Your task to perform on an android device: turn off priority inbox in the gmail app Image 0: 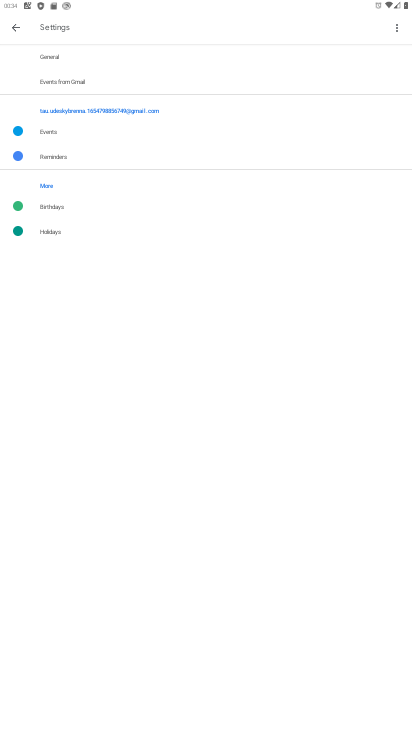
Step 0: press home button
Your task to perform on an android device: turn off priority inbox in the gmail app Image 1: 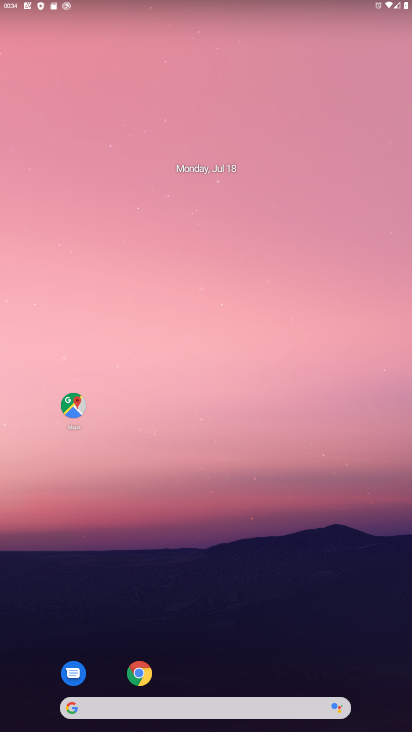
Step 1: drag from (293, 689) to (266, 260)
Your task to perform on an android device: turn off priority inbox in the gmail app Image 2: 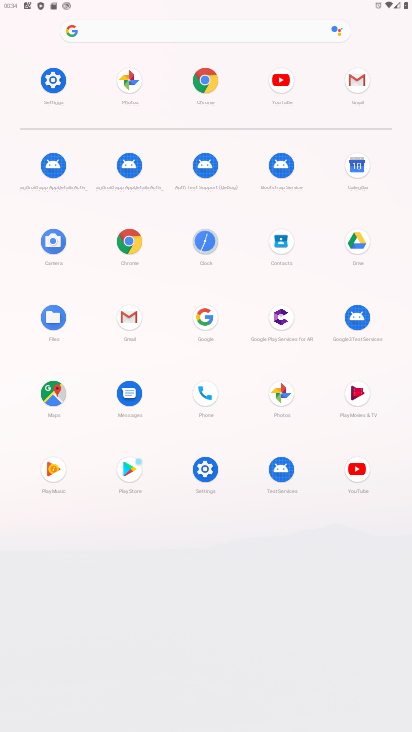
Step 2: click (375, 94)
Your task to perform on an android device: turn off priority inbox in the gmail app Image 3: 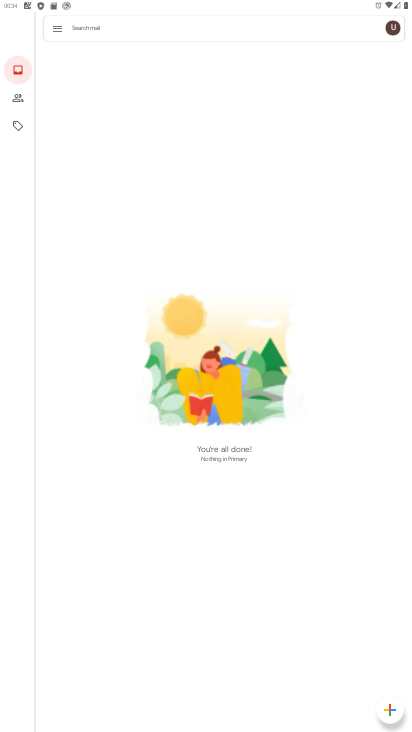
Step 3: click (52, 37)
Your task to perform on an android device: turn off priority inbox in the gmail app Image 4: 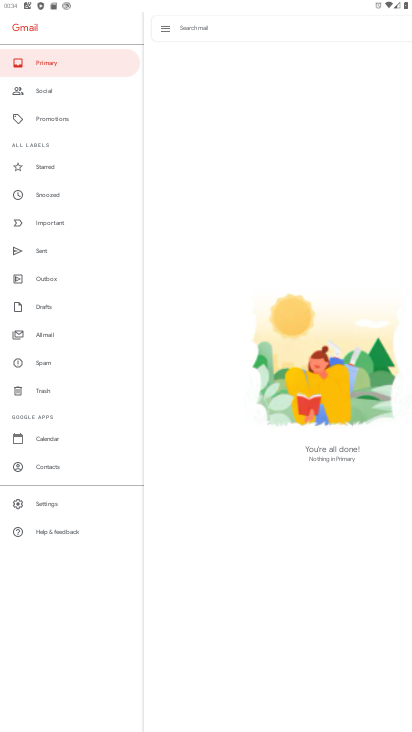
Step 4: click (76, 507)
Your task to perform on an android device: turn off priority inbox in the gmail app Image 5: 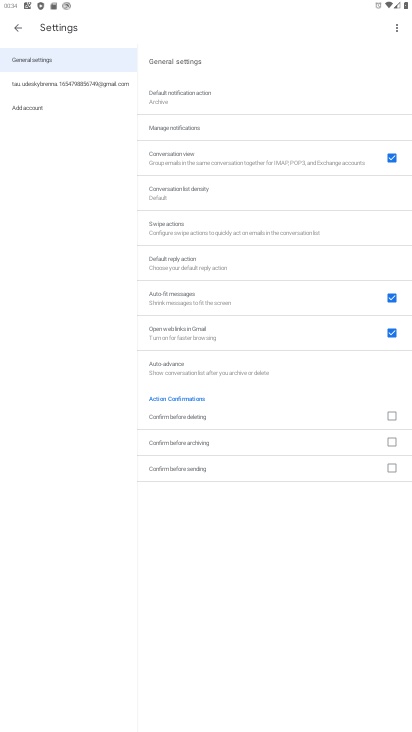
Step 5: click (70, 88)
Your task to perform on an android device: turn off priority inbox in the gmail app Image 6: 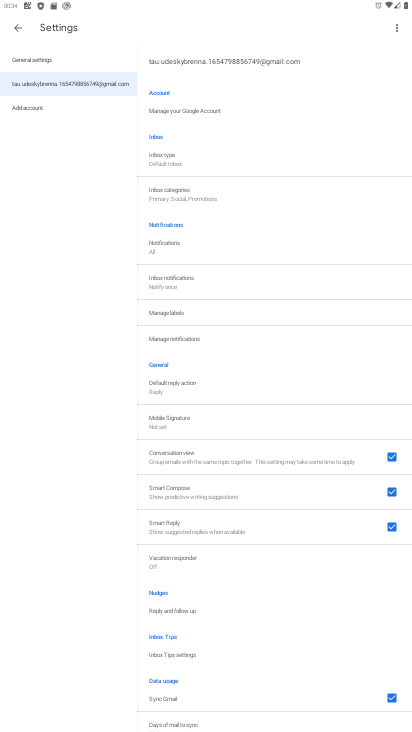
Step 6: task complete